Your task to perform on an android device: Go to Maps Image 0: 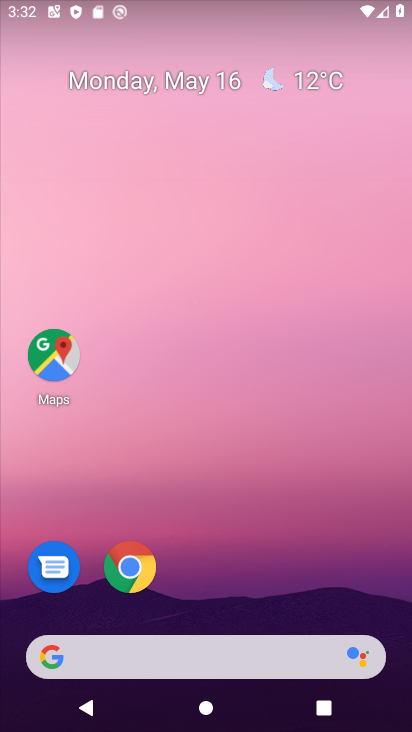
Step 0: drag from (219, 229) to (209, 0)
Your task to perform on an android device: Go to Maps Image 1: 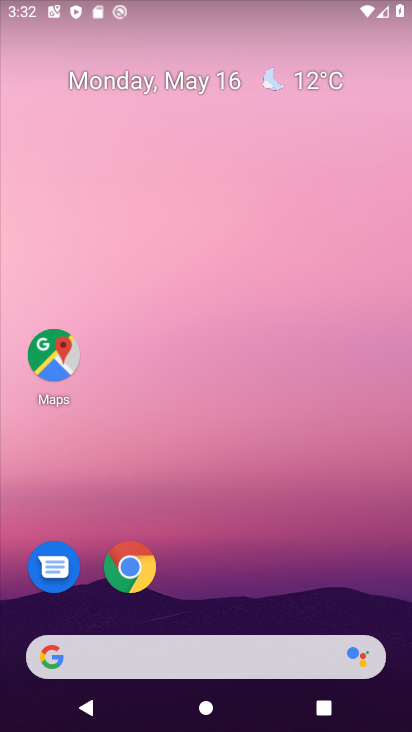
Step 1: drag from (236, 546) to (150, 17)
Your task to perform on an android device: Go to Maps Image 2: 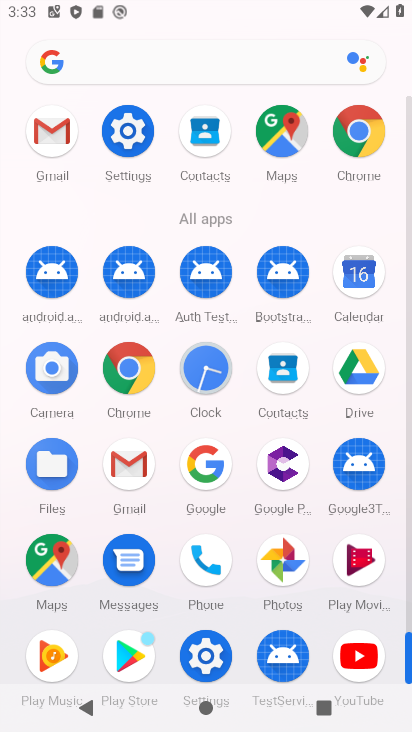
Step 2: click (275, 132)
Your task to perform on an android device: Go to Maps Image 3: 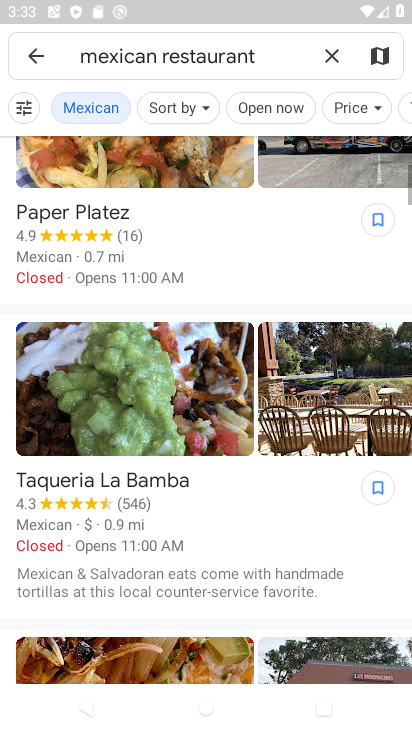
Step 3: click (329, 50)
Your task to perform on an android device: Go to Maps Image 4: 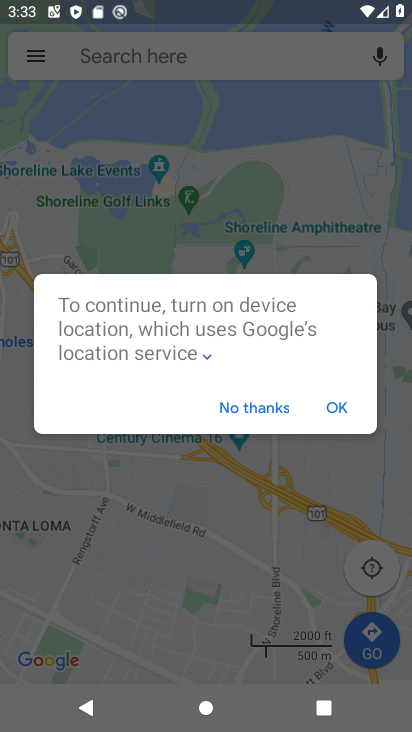
Step 4: click (239, 403)
Your task to perform on an android device: Go to Maps Image 5: 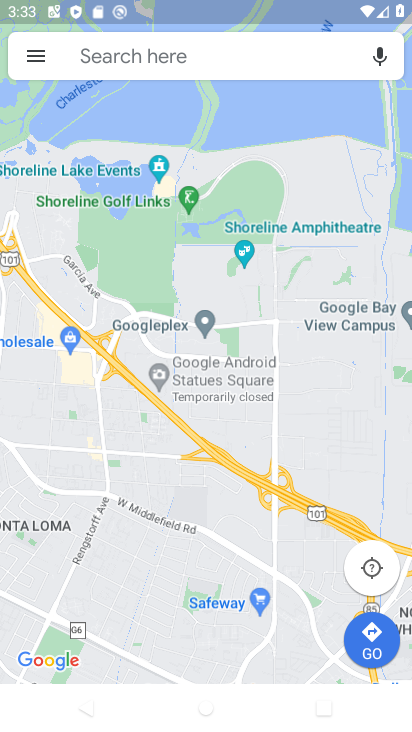
Step 5: task complete